Your task to perform on an android device: Check the news Image 0: 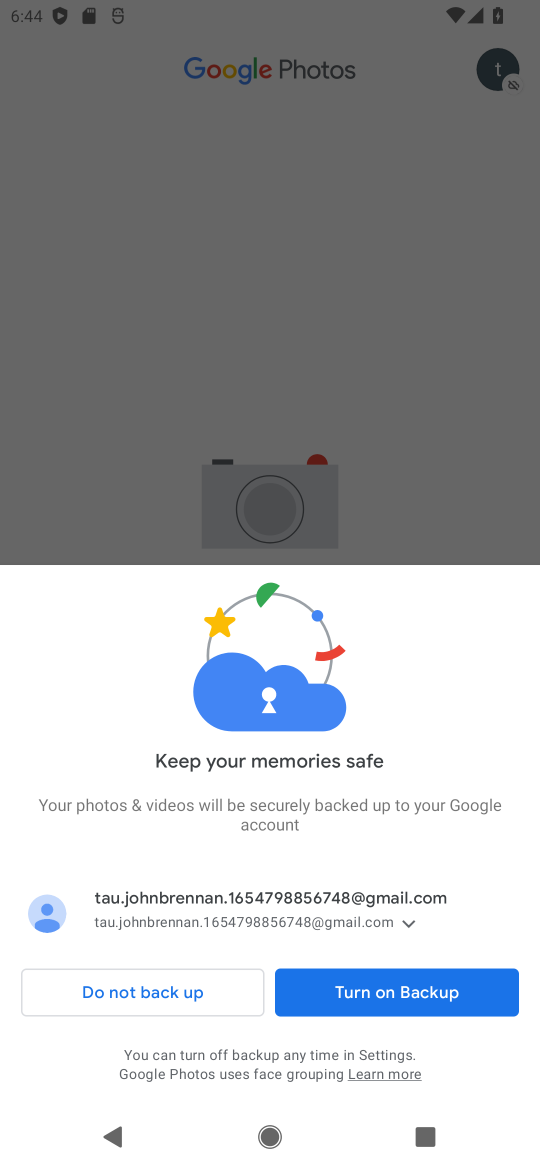
Step 0: press home button
Your task to perform on an android device: Check the news Image 1: 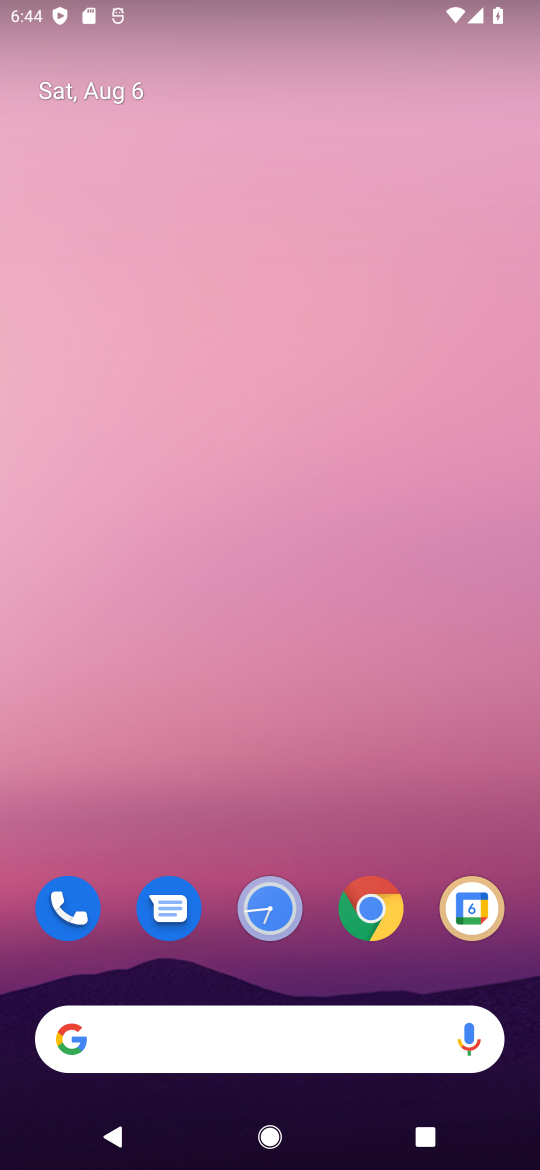
Step 1: drag from (14, 434) to (539, 424)
Your task to perform on an android device: Check the news Image 2: 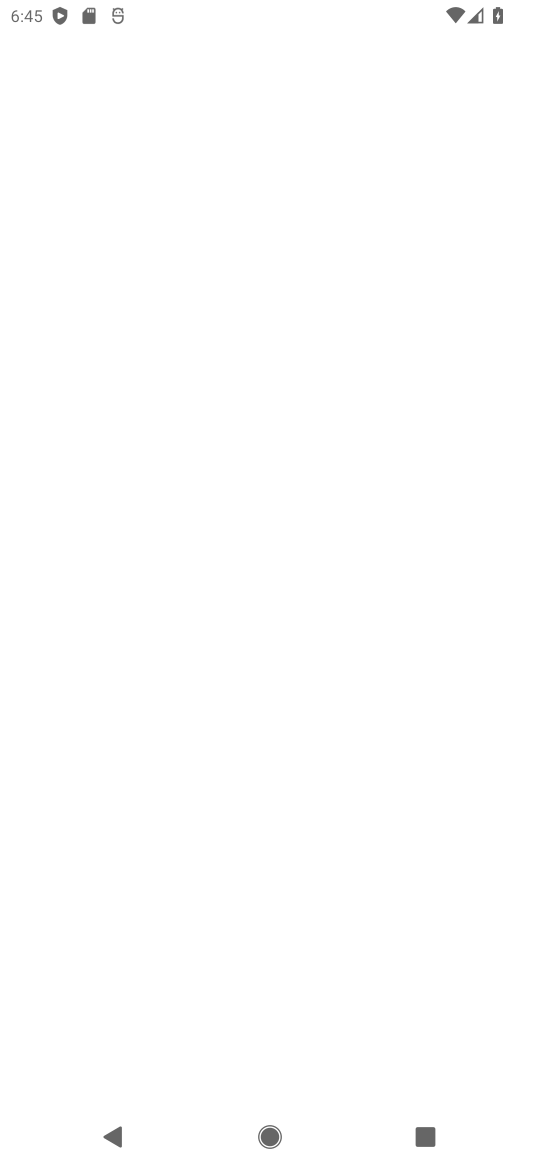
Step 2: press back button
Your task to perform on an android device: Check the news Image 3: 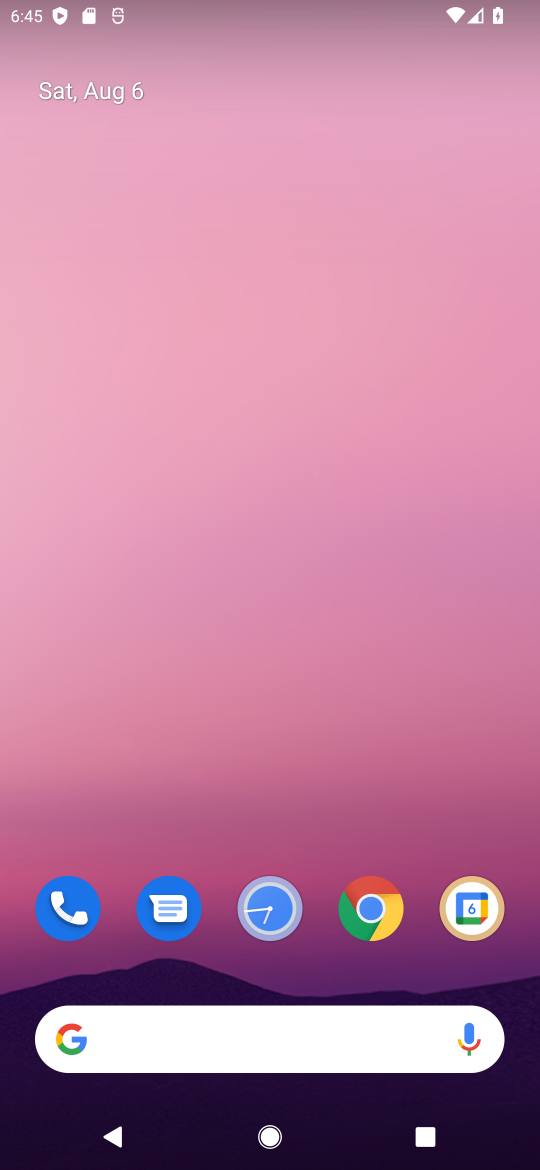
Step 3: click (264, 1026)
Your task to perform on an android device: Check the news Image 4: 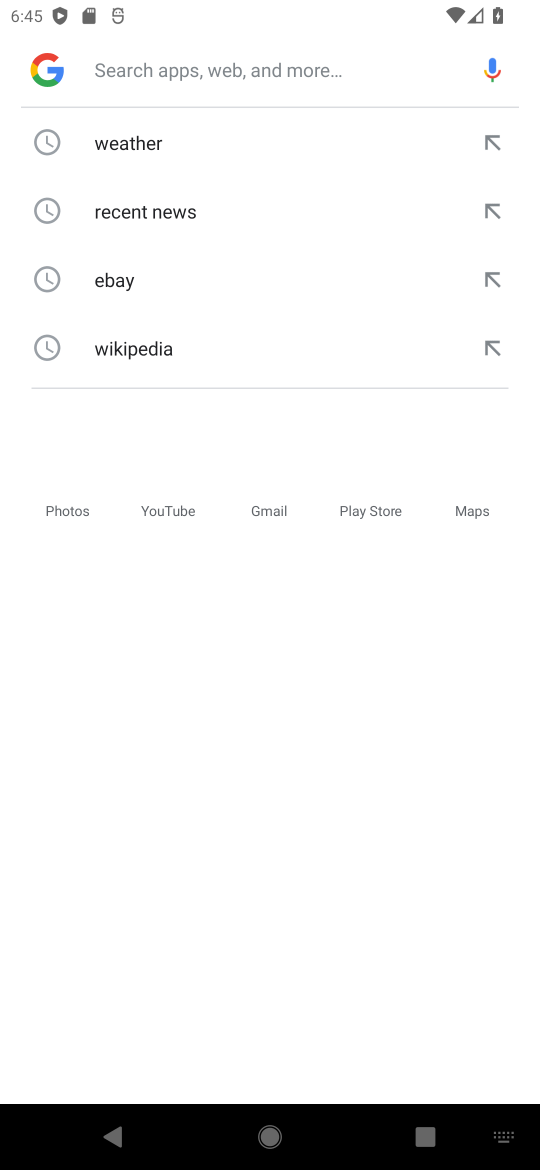
Step 4: type "news"
Your task to perform on an android device: Check the news Image 5: 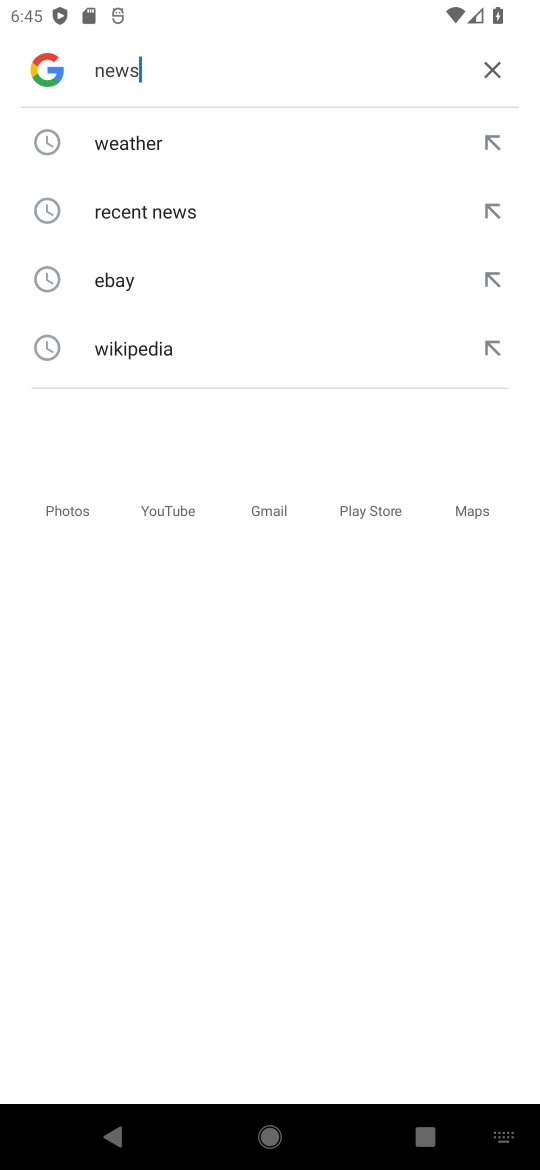
Step 5: press enter
Your task to perform on an android device: Check the news Image 6: 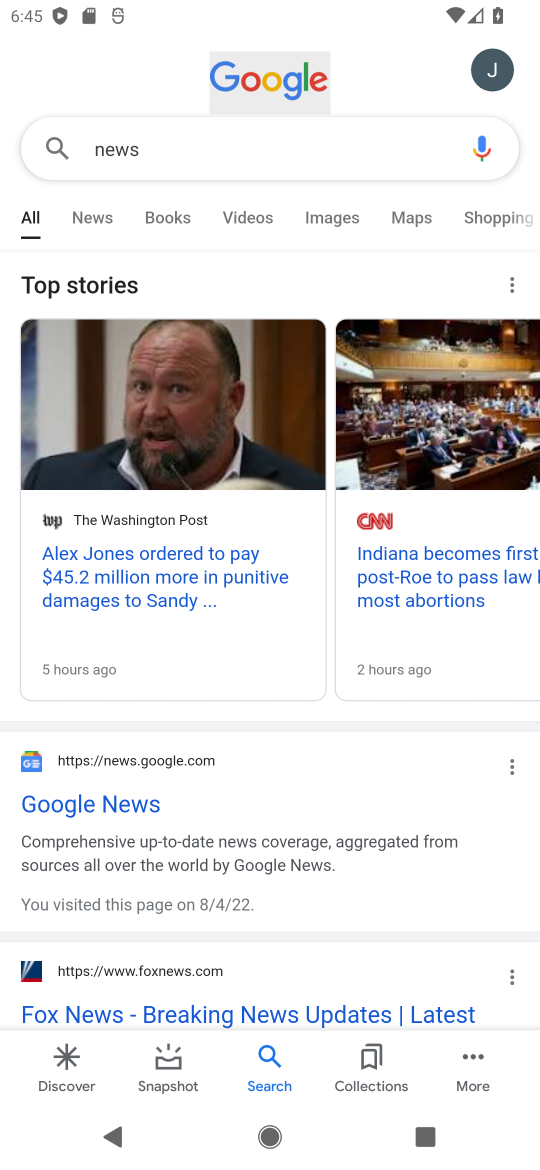
Step 6: task complete